Your task to perform on an android device: change alarm snooze length Image 0: 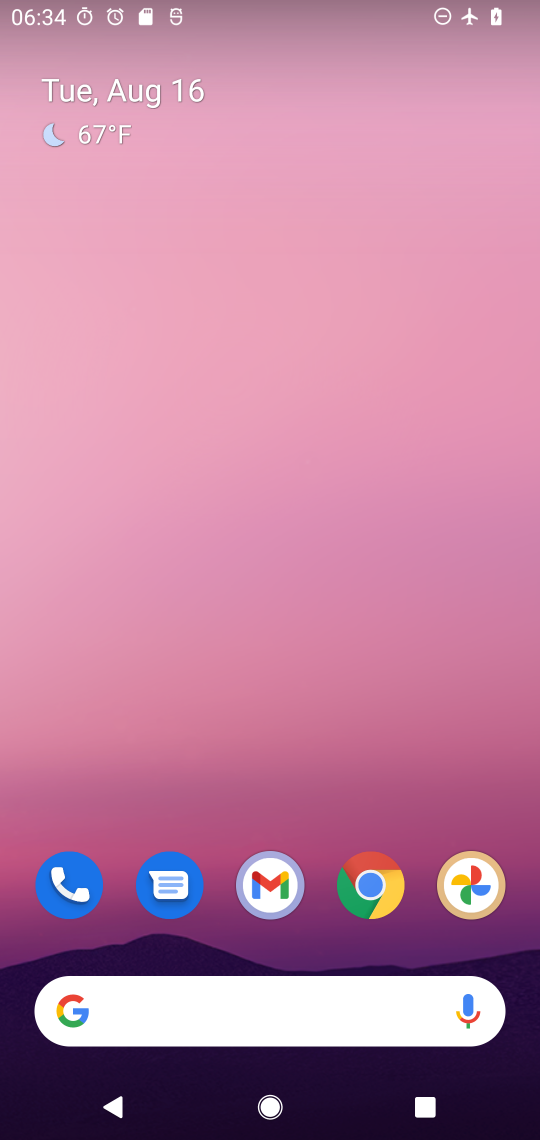
Step 0: drag from (314, 748) to (316, 105)
Your task to perform on an android device: change alarm snooze length Image 1: 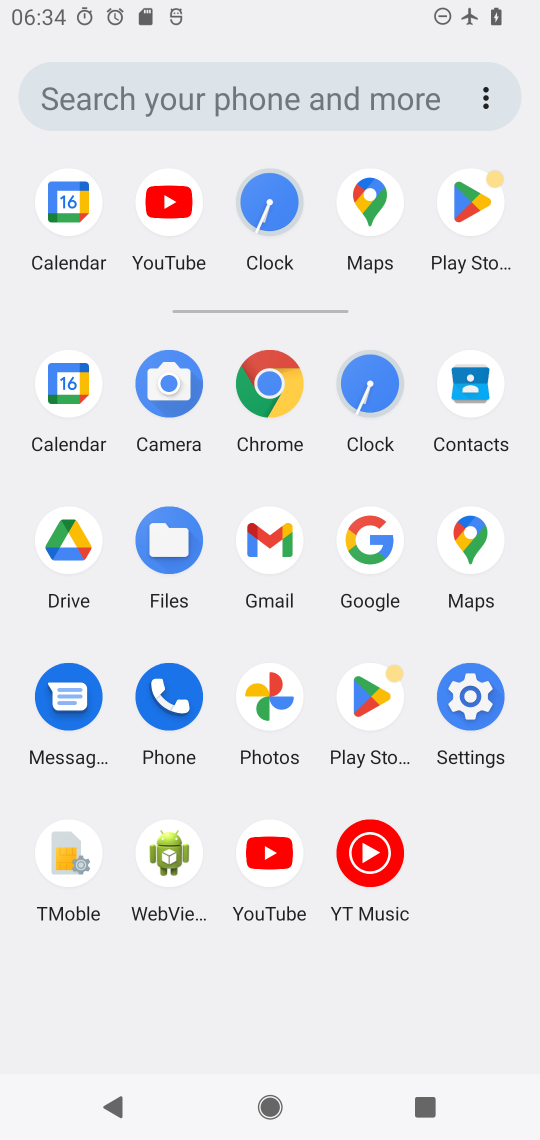
Step 1: click (360, 386)
Your task to perform on an android device: change alarm snooze length Image 2: 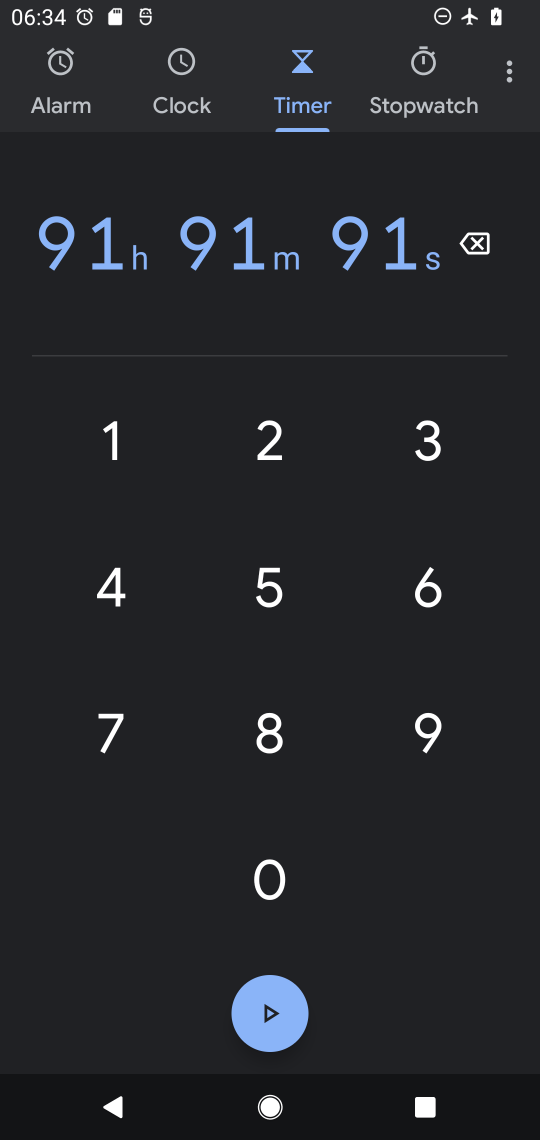
Step 2: click (511, 63)
Your task to perform on an android device: change alarm snooze length Image 3: 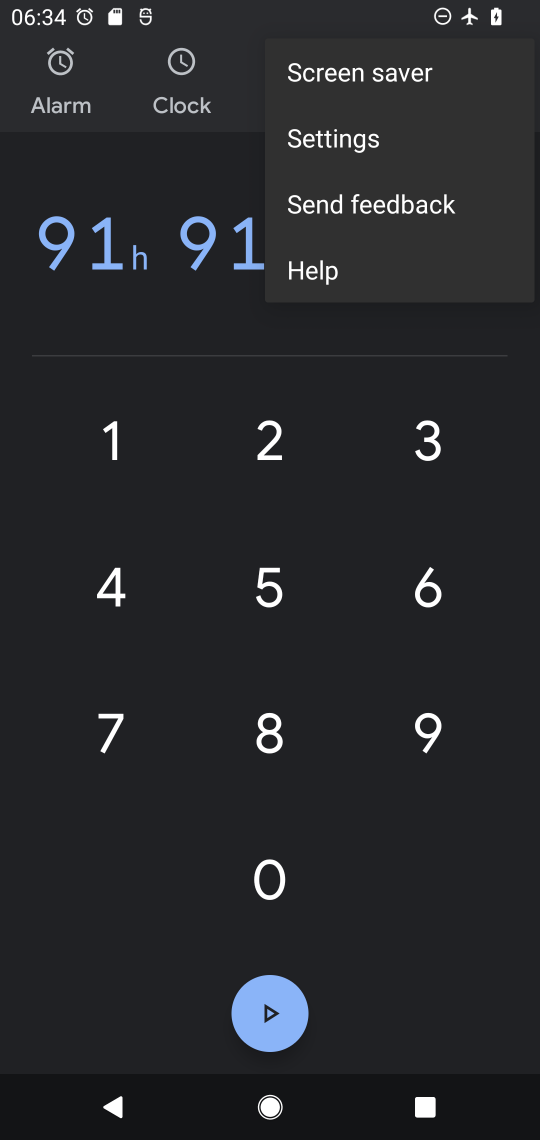
Step 3: click (404, 154)
Your task to perform on an android device: change alarm snooze length Image 4: 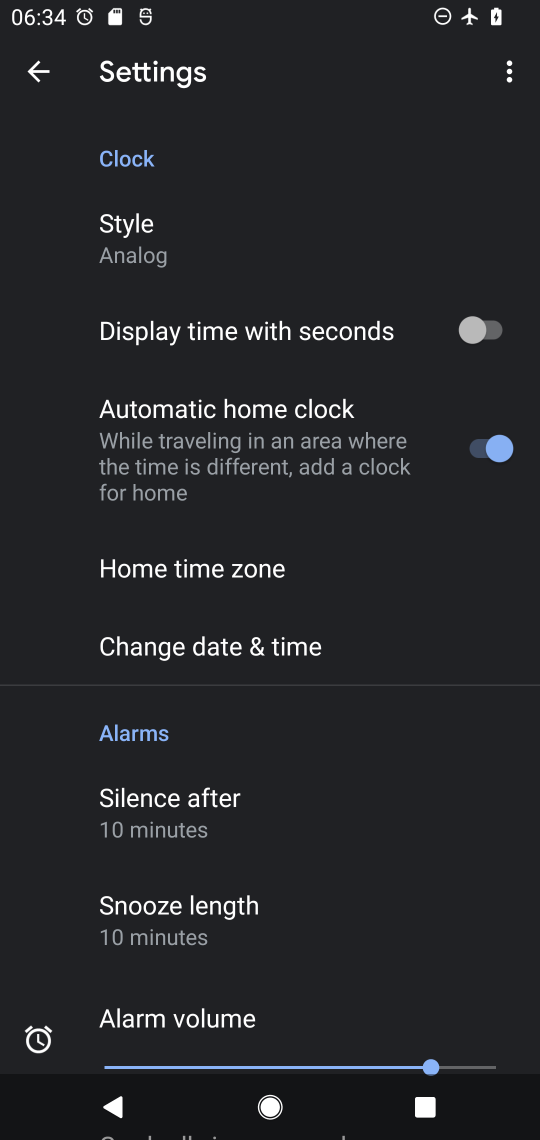
Step 4: click (259, 919)
Your task to perform on an android device: change alarm snooze length Image 5: 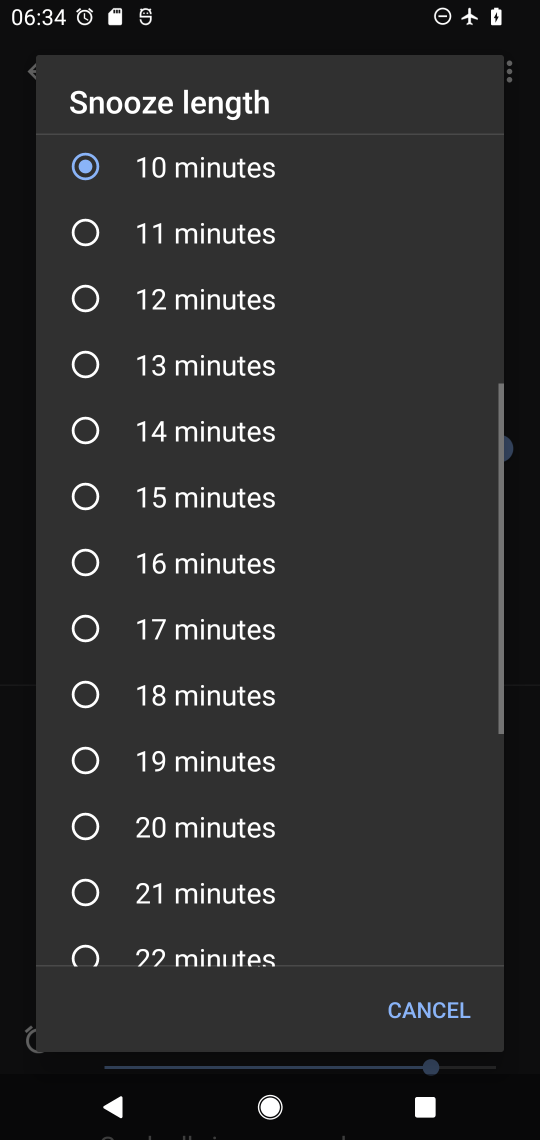
Step 5: click (196, 816)
Your task to perform on an android device: change alarm snooze length Image 6: 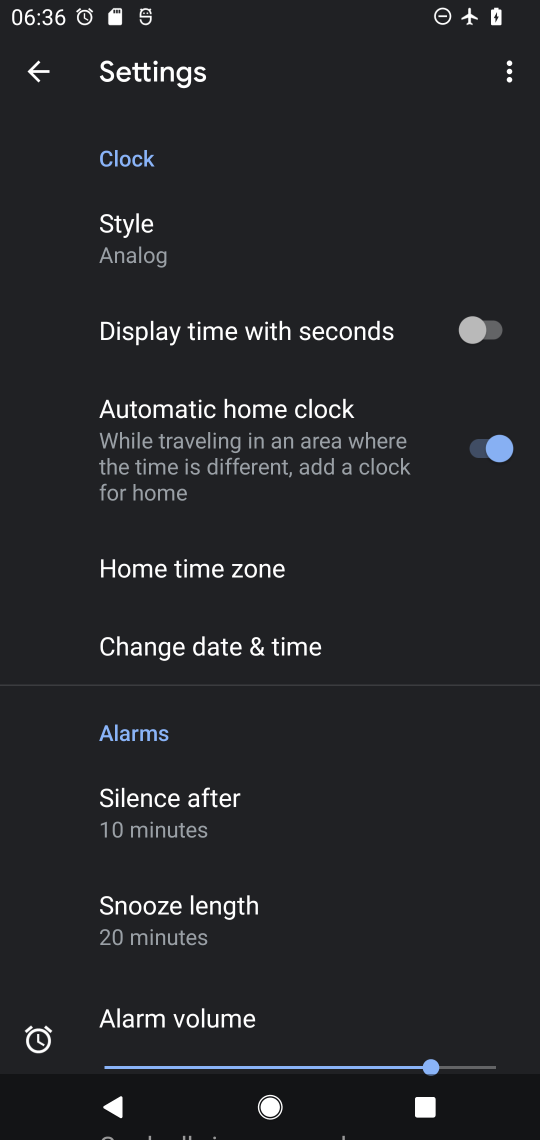
Step 6: task complete